Your task to perform on an android device: turn pop-ups on in chrome Image 0: 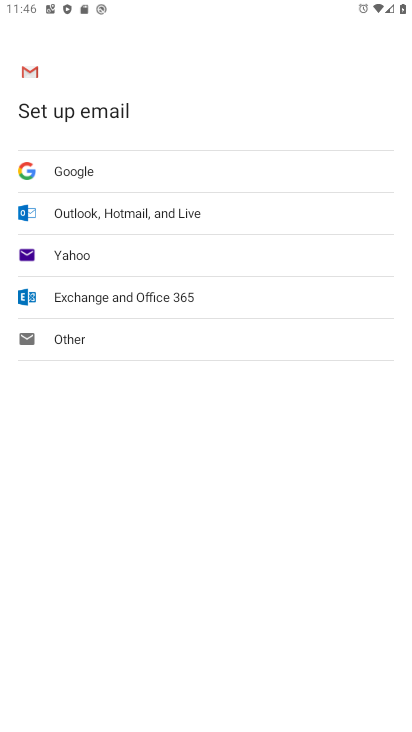
Step 0: drag from (223, 520) to (223, 306)
Your task to perform on an android device: turn pop-ups on in chrome Image 1: 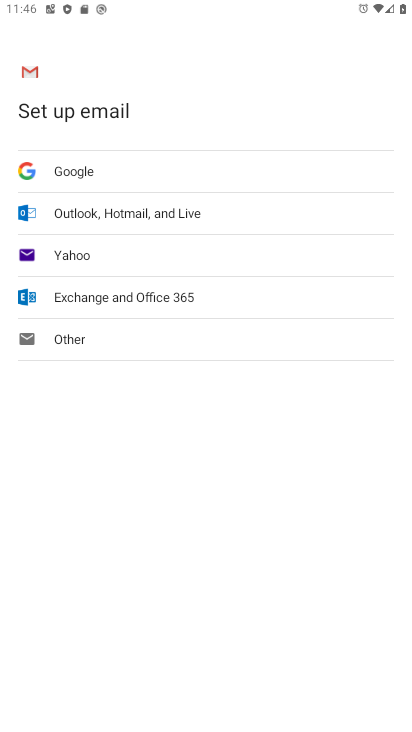
Step 1: press home button
Your task to perform on an android device: turn pop-ups on in chrome Image 2: 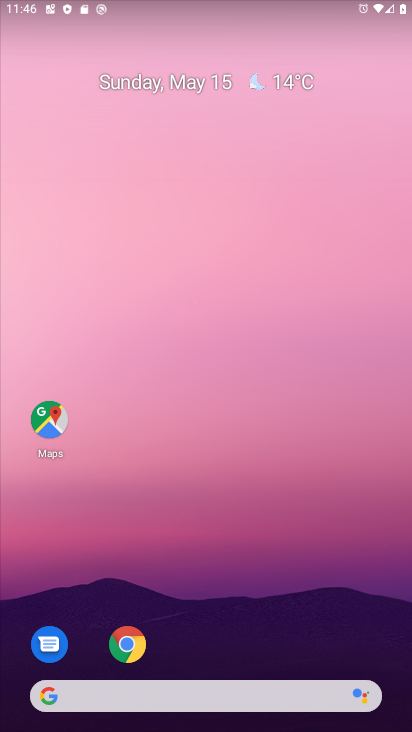
Step 2: click (133, 635)
Your task to perform on an android device: turn pop-ups on in chrome Image 3: 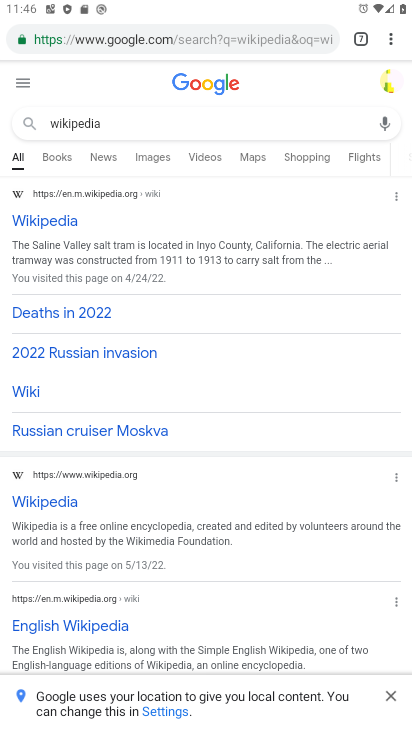
Step 3: click (380, 38)
Your task to perform on an android device: turn pop-ups on in chrome Image 4: 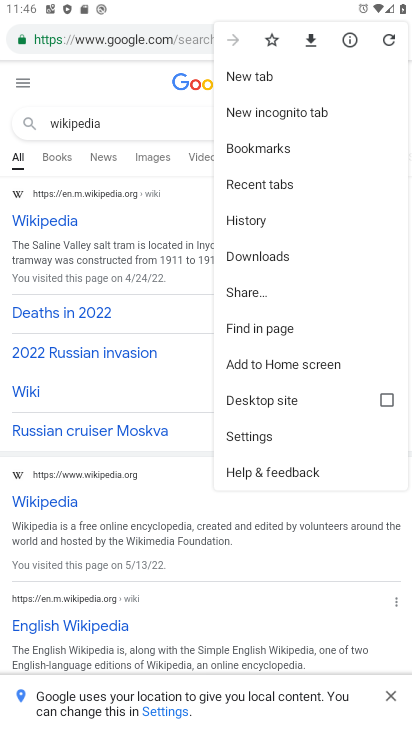
Step 4: click (268, 427)
Your task to perform on an android device: turn pop-ups on in chrome Image 5: 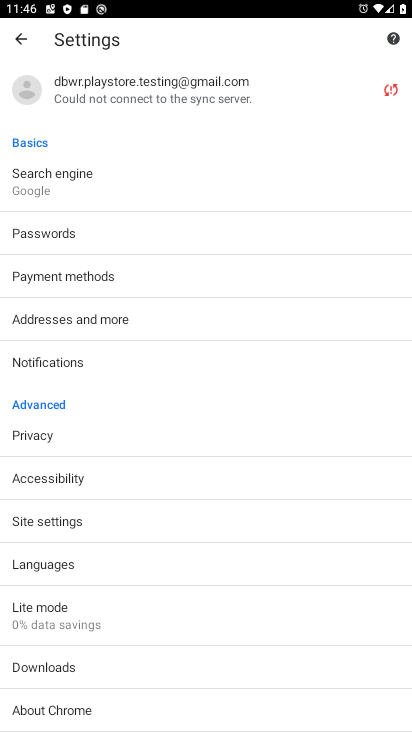
Step 5: click (102, 527)
Your task to perform on an android device: turn pop-ups on in chrome Image 6: 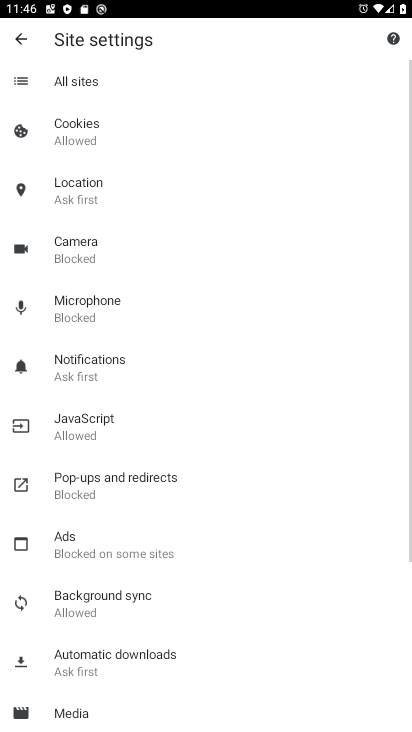
Step 6: click (103, 492)
Your task to perform on an android device: turn pop-ups on in chrome Image 7: 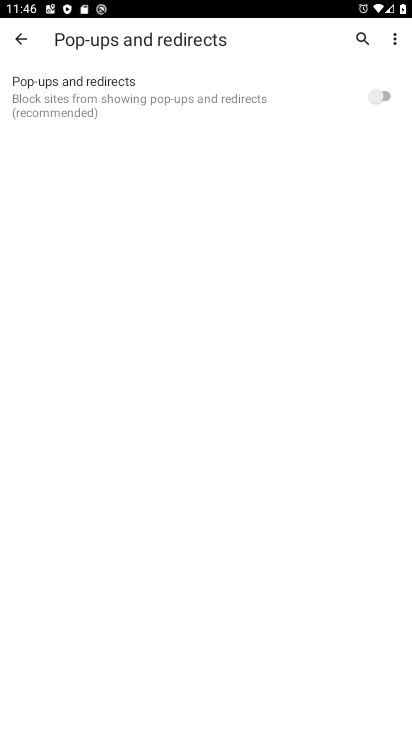
Step 7: click (366, 85)
Your task to perform on an android device: turn pop-ups on in chrome Image 8: 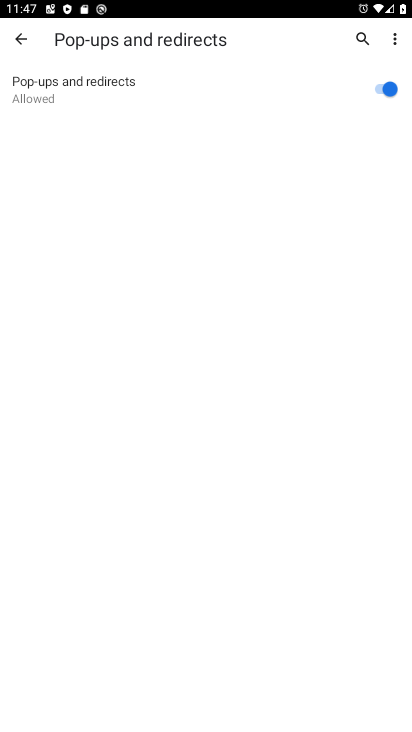
Step 8: task complete